Your task to perform on an android device: turn off notifications settings in the gmail app Image 0: 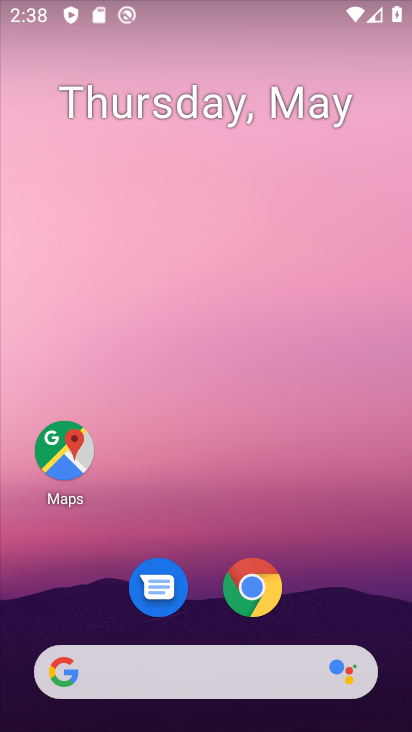
Step 0: drag from (325, 624) to (299, 4)
Your task to perform on an android device: turn off notifications settings in the gmail app Image 1: 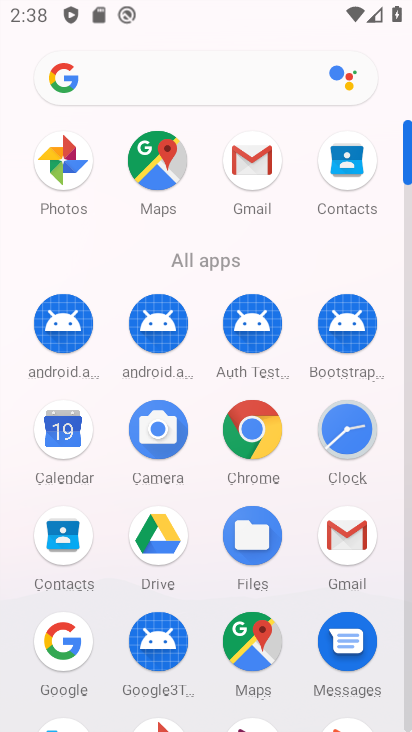
Step 1: click (259, 167)
Your task to perform on an android device: turn off notifications settings in the gmail app Image 2: 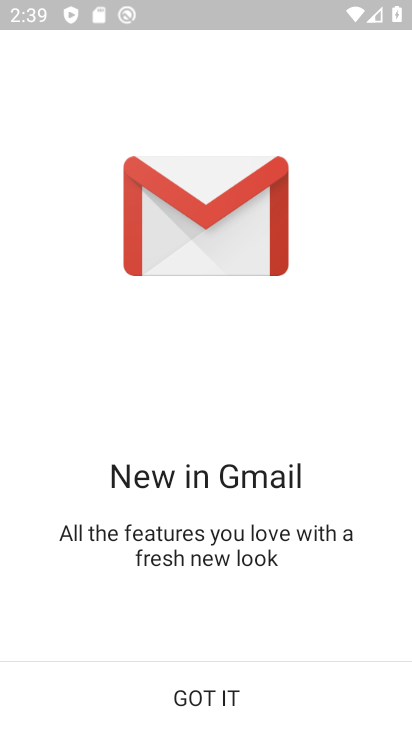
Step 2: click (213, 690)
Your task to perform on an android device: turn off notifications settings in the gmail app Image 3: 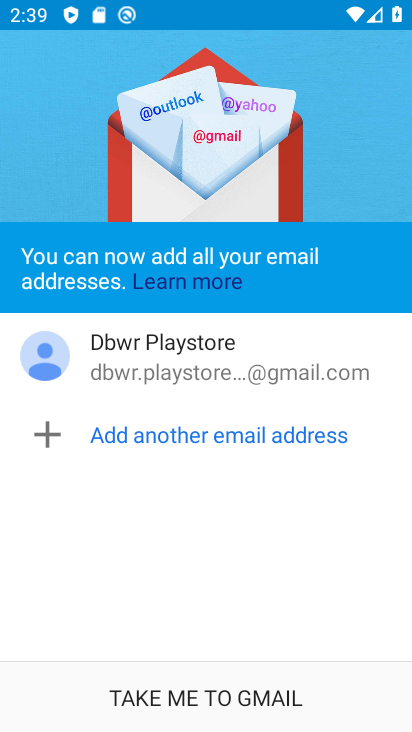
Step 3: click (242, 693)
Your task to perform on an android device: turn off notifications settings in the gmail app Image 4: 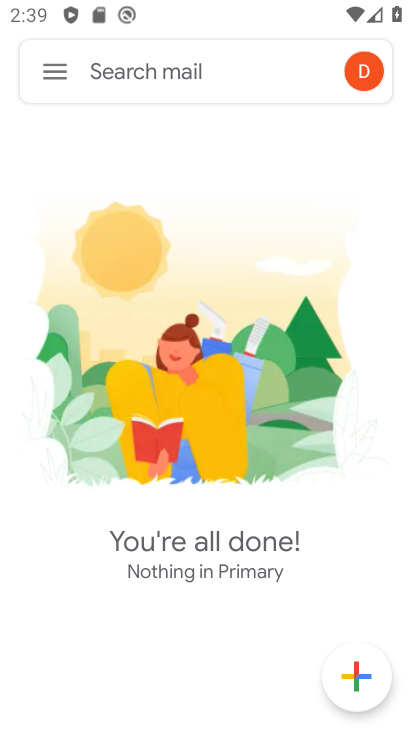
Step 4: click (48, 64)
Your task to perform on an android device: turn off notifications settings in the gmail app Image 5: 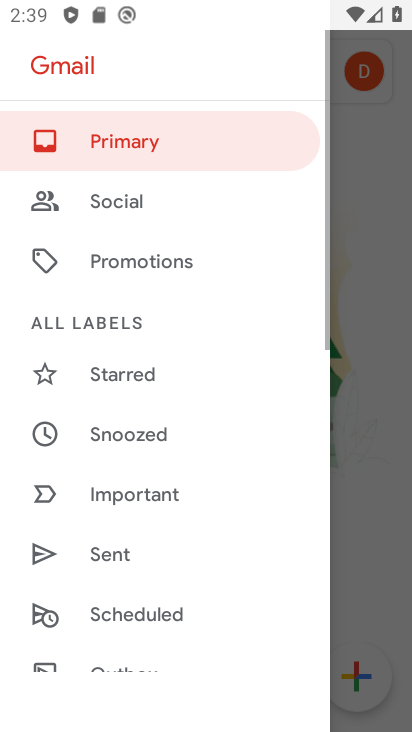
Step 5: drag from (173, 604) to (119, 97)
Your task to perform on an android device: turn off notifications settings in the gmail app Image 6: 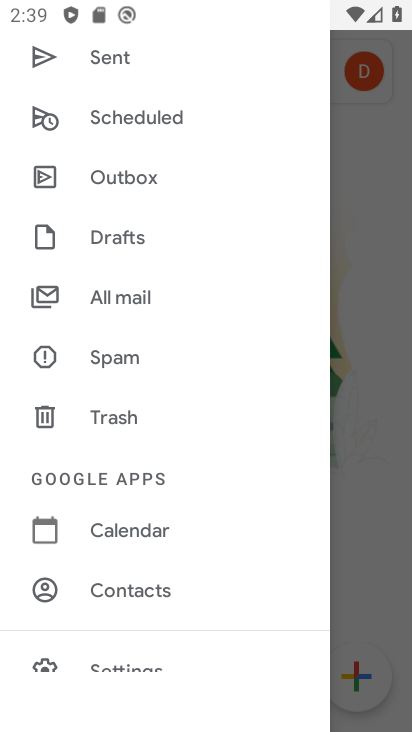
Step 6: click (141, 657)
Your task to perform on an android device: turn off notifications settings in the gmail app Image 7: 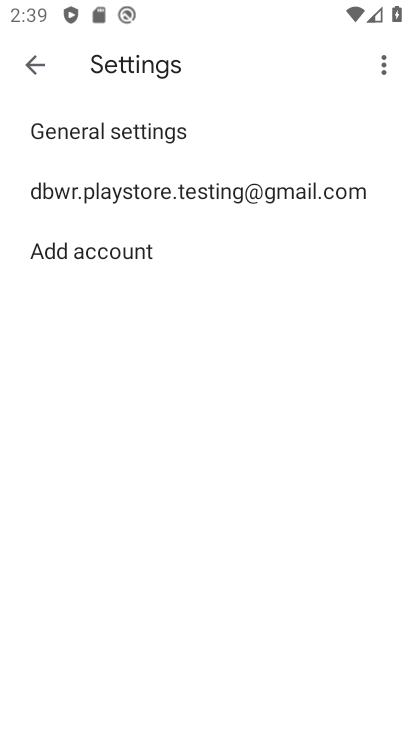
Step 7: click (123, 181)
Your task to perform on an android device: turn off notifications settings in the gmail app Image 8: 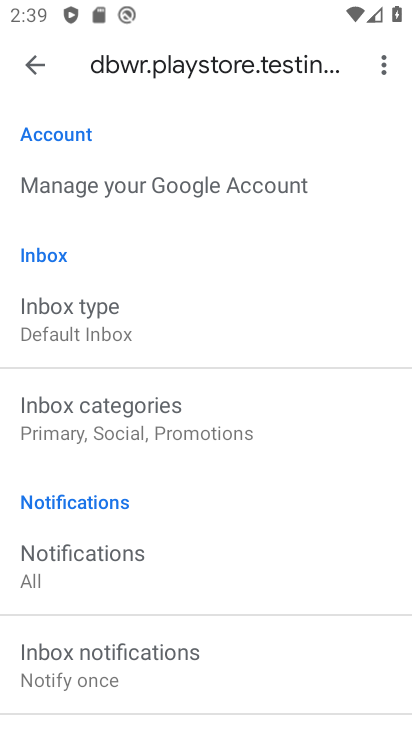
Step 8: click (114, 583)
Your task to perform on an android device: turn off notifications settings in the gmail app Image 9: 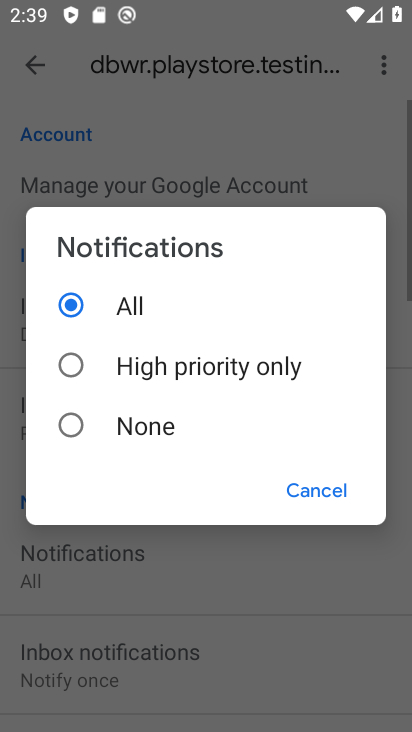
Step 9: click (124, 408)
Your task to perform on an android device: turn off notifications settings in the gmail app Image 10: 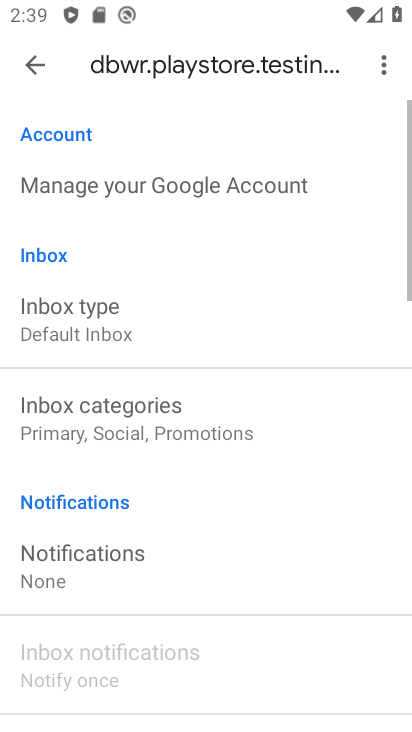
Step 10: drag from (151, 632) to (129, 184)
Your task to perform on an android device: turn off notifications settings in the gmail app Image 11: 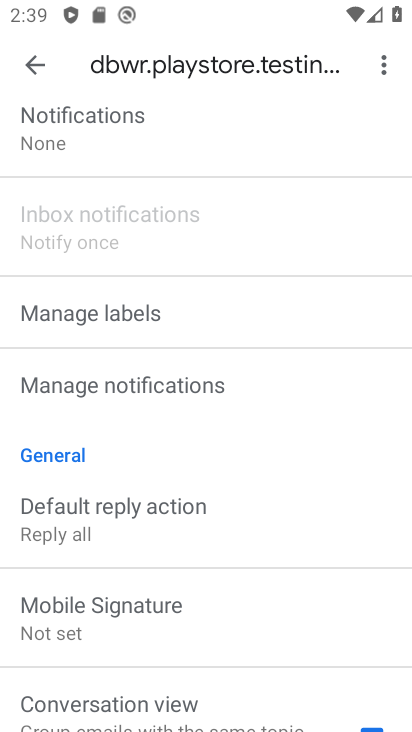
Step 11: click (148, 394)
Your task to perform on an android device: turn off notifications settings in the gmail app Image 12: 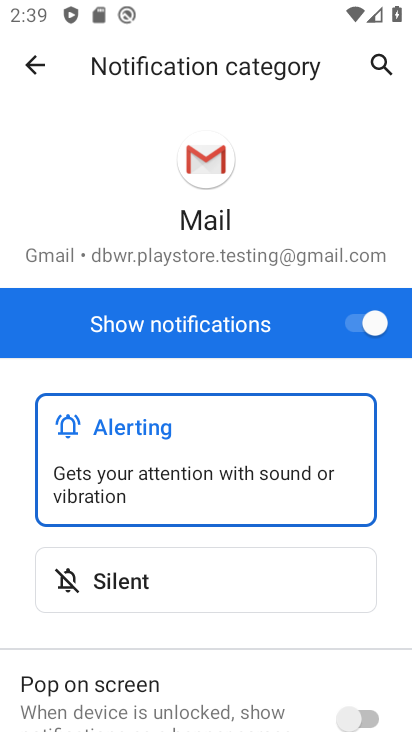
Step 12: click (368, 330)
Your task to perform on an android device: turn off notifications settings in the gmail app Image 13: 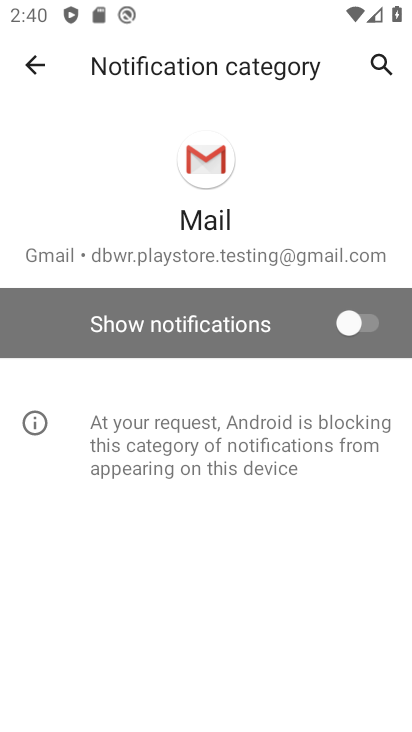
Step 13: task complete